Your task to perform on an android device: Is it going to rain tomorrow? Image 0: 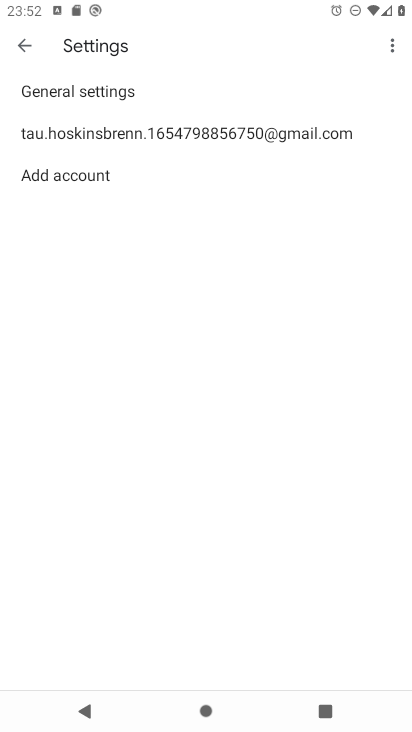
Step 0: press home button
Your task to perform on an android device: Is it going to rain tomorrow? Image 1: 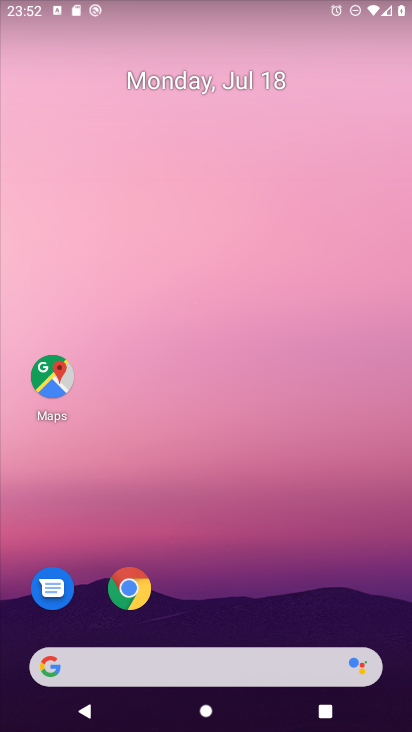
Step 1: drag from (1, 277) to (393, 325)
Your task to perform on an android device: Is it going to rain tomorrow? Image 2: 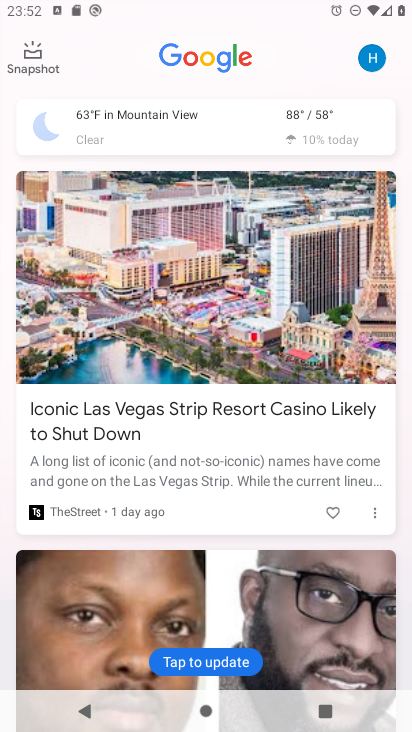
Step 2: click (306, 116)
Your task to perform on an android device: Is it going to rain tomorrow? Image 3: 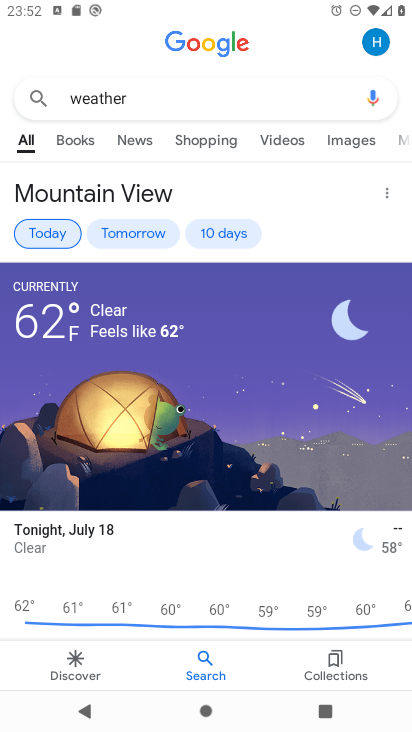
Step 3: click (130, 233)
Your task to perform on an android device: Is it going to rain tomorrow? Image 4: 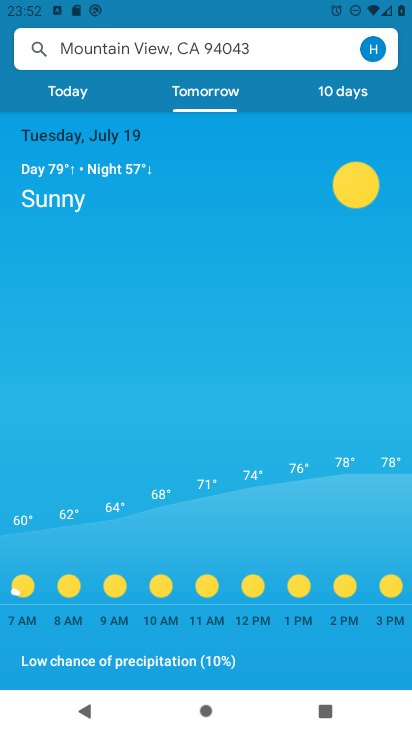
Step 4: task complete